Your task to perform on an android device: open app "Spotify: Music and Podcasts" Image 0: 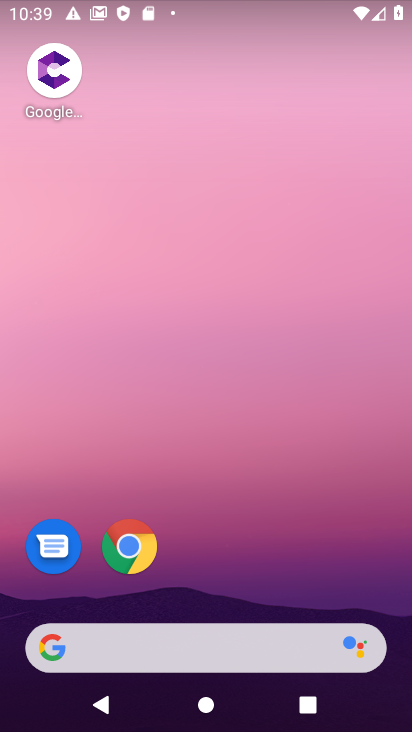
Step 0: drag from (236, 596) to (170, 87)
Your task to perform on an android device: open app "Spotify: Music and Podcasts" Image 1: 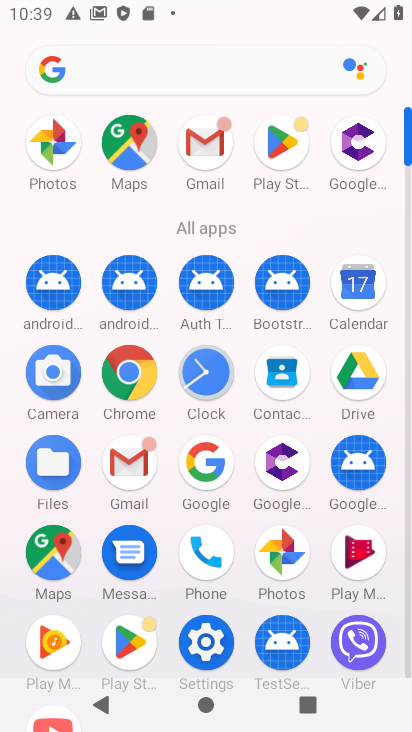
Step 1: click (131, 654)
Your task to perform on an android device: open app "Spotify: Music and Podcasts" Image 2: 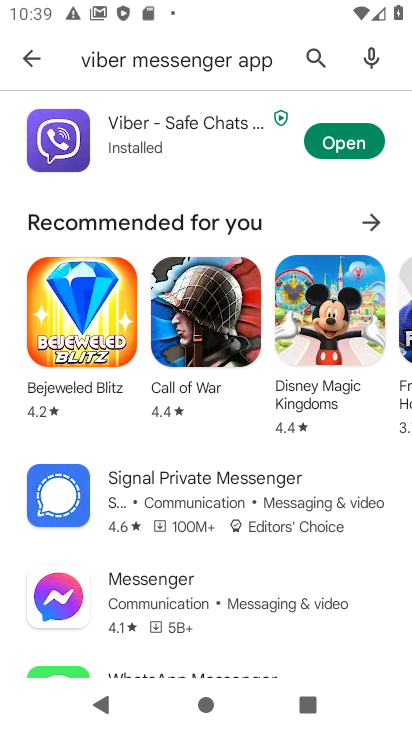
Step 2: click (22, 59)
Your task to perform on an android device: open app "Spotify: Music and Podcasts" Image 3: 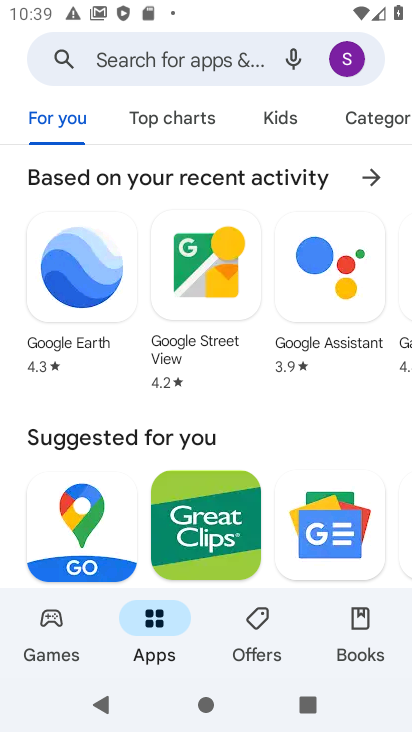
Step 3: click (174, 69)
Your task to perform on an android device: open app "Spotify: Music and Podcasts" Image 4: 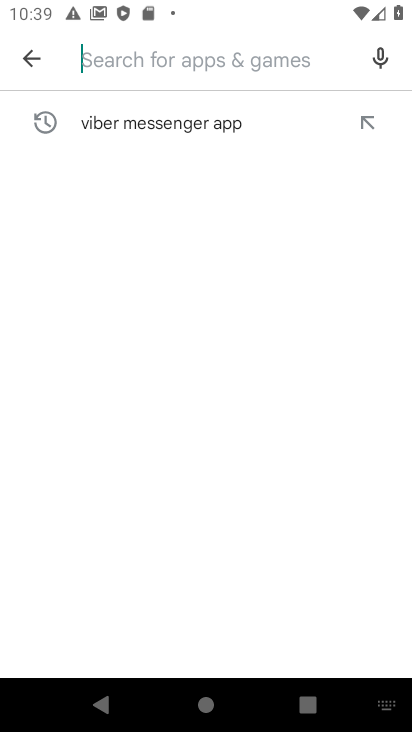
Step 4: type "Spotify"
Your task to perform on an android device: open app "Spotify: Music and Podcasts" Image 5: 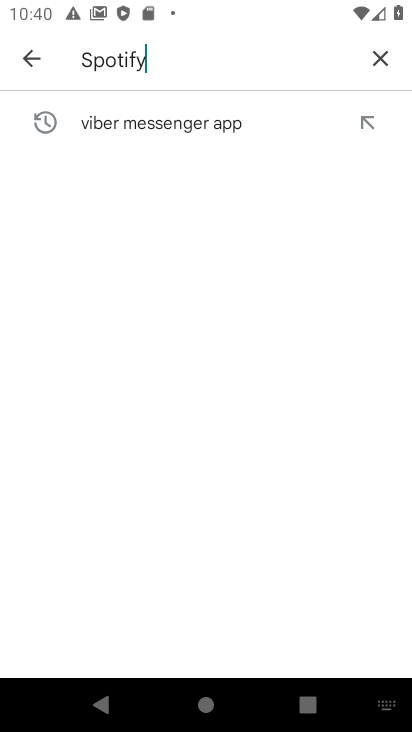
Step 5: type ""
Your task to perform on an android device: open app "Spotify: Music and Podcasts" Image 6: 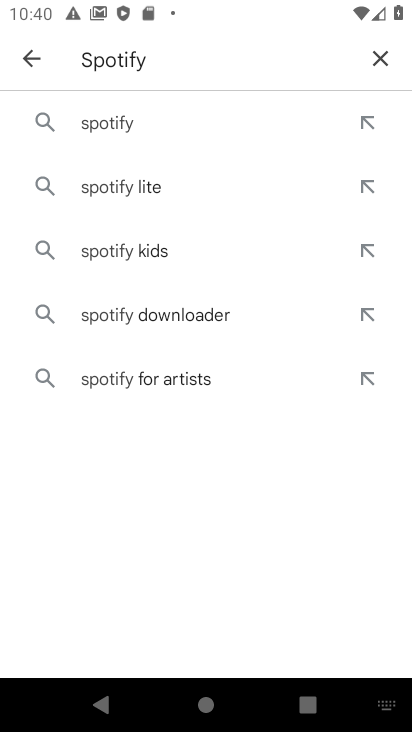
Step 6: click (105, 129)
Your task to perform on an android device: open app "Spotify: Music and Podcasts" Image 7: 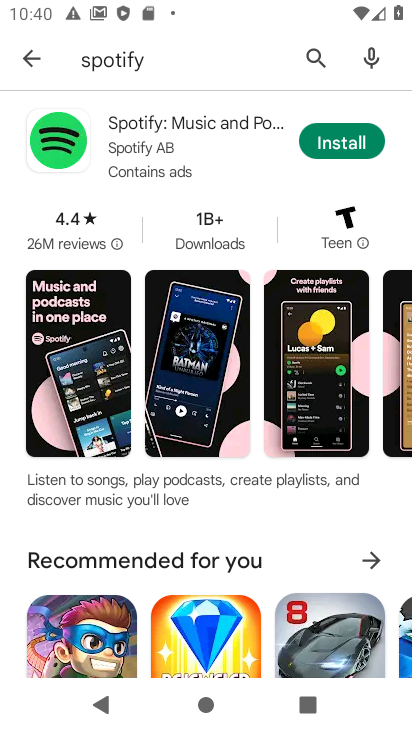
Step 7: task complete